Your task to perform on an android device: Empty the shopping cart on walmart. Search for "asus rog" on walmart, select the first entry, add it to the cart, then select checkout. Image 0: 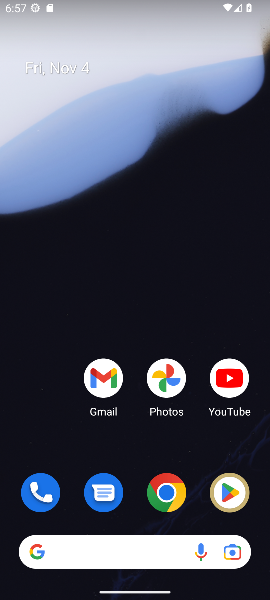
Step 0: drag from (143, 469) to (185, 83)
Your task to perform on an android device: Empty the shopping cart on walmart. Search for "asus rog" on walmart, select the first entry, add it to the cart, then select checkout. Image 1: 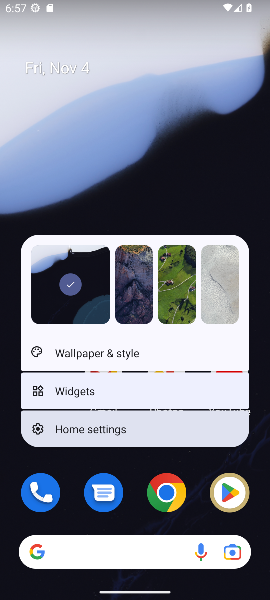
Step 1: click (241, 133)
Your task to perform on an android device: Empty the shopping cart on walmart. Search for "asus rog" on walmart, select the first entry, add it to the cart, then select checkout. Image 2: 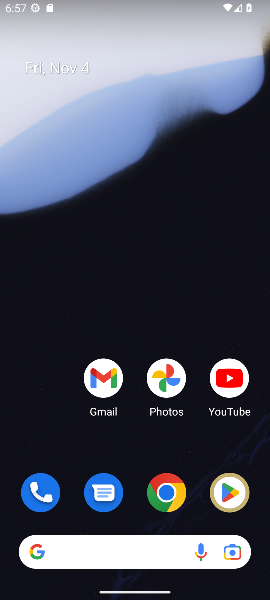
Step 2: drag from (131, 456) to (157, 102)
Your task to perform on an android device: Empty the shopping cart on walmart. Search for "asus rog" on walmart, select the first entry, add it to the cart, then select checkout. Image 3: 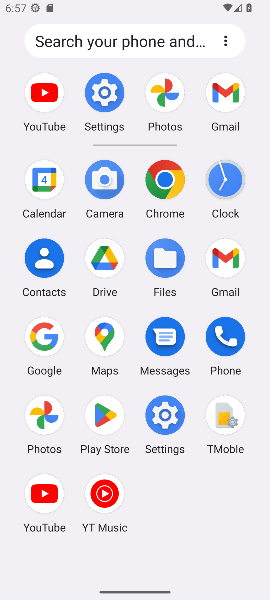
Step 3: click (166, 179)
Your task to perform on an android device: Empty the shopping cart on walmart. Search for "asus rog" on walmart, select the first entry, add it to the cart, then select checkout. Image 4: 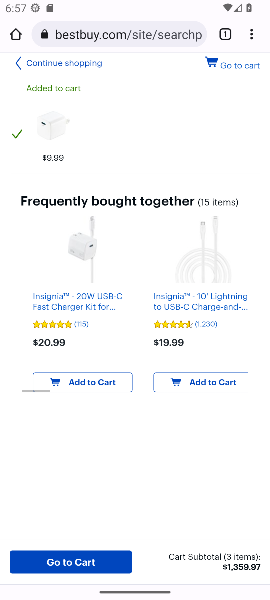
Step 4: click (190, 30)
Your task to perform on an android device: Empty the shopping cart on walmart. Search for "asus rog" on walmart, select the first entry, add it to the cart, then select checkout. Image 5: 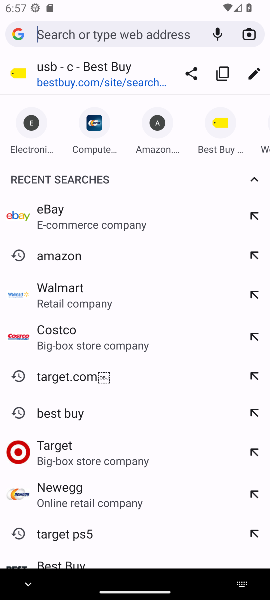
Step 5: type "walmart.com"
Your task to perform on an android device: Empty the shopping cart on walmart. Search for "asus rog" on walmart, select the first entry, add it to the cart, then select checkout. Image 6: 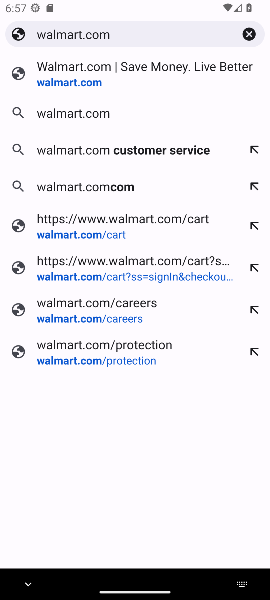
Step 6: press enter
Your task to perform on an android device: Empty the shopping cart on walmart. Search for "asus rog" on walmart, select the first entry, add it to the cart, then select checkout. Image 7: 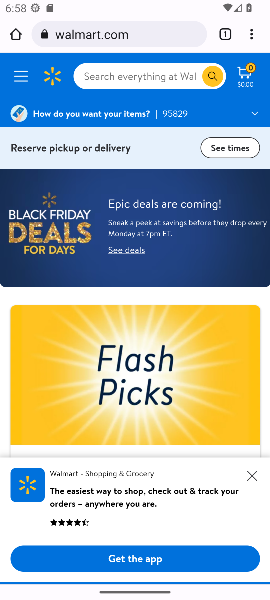
Step 7: click (250, 73)
Your task to perform on an android device: Empty the shopping cart on walmart. Search for "asus rog" on walmart, select the first entry, add it to the cart, then select checkout. Image 8: 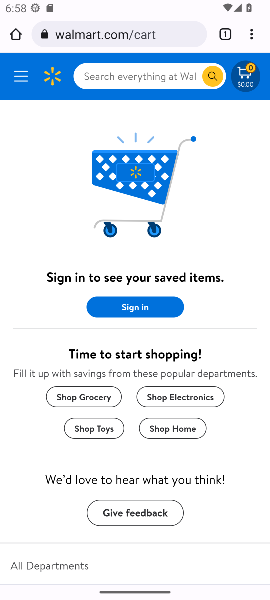
Step 8: click (170, 73)
Your task to perform on an android device: Empty the shopping cart on walmart. Search for "asus rog" on walmart, select the first entry, add it to the cart, then select checkout. Image 9: 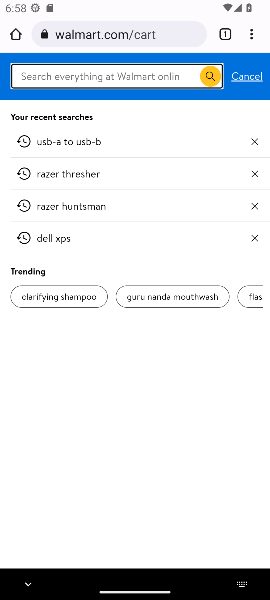
Step 9: type "asus rog"
Your task to perform on an android device: Empty the shopping cart on walmart. Search for "asus rog" on walmart, select the first entry, add it to the cart, then select checkout. Image 10: 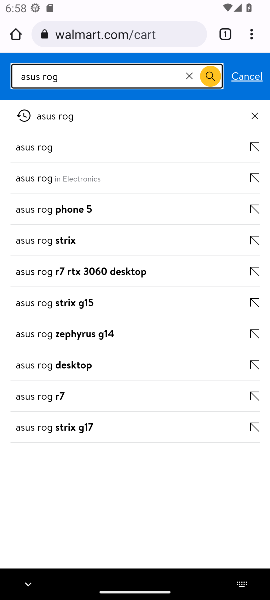
Step 10: press enter
Your task to perform on an android device: Empty the shopping cart on walmart. Search for "asus rog" on walmart, select the first entry, add it to the cart, then select checkout. Image 11: 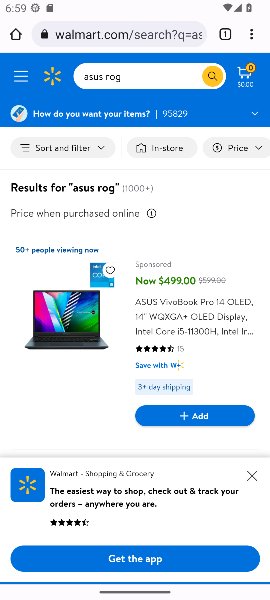
Step 11: drag from (85, 406) to (154, 62)
Your task to perform on an android device: Empty the shopping cart on walmart. Search for "asus rog" on walmart, select the first entry, add it to the cart, then select checkout. Image 12: 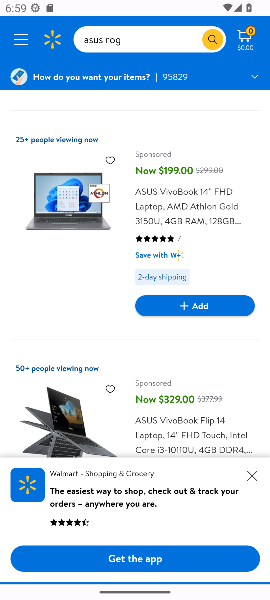
Step 12: drag from (138, 432) to (182, 110)
Your task to perform on an android device: Empty the shopping cart on walmart. Search for "asus rog" on walmart, select the first entry, add it to the cart, then select checkout. Image 13: 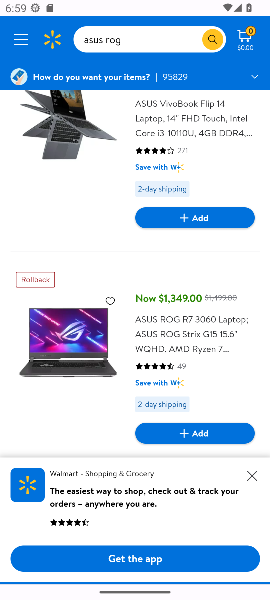
Step 13: click (201, 432)
Your task to perform on an android device: Empty the shopping cart on walmart. Search for "asus rog" on walmart, select the first entry, add it to the cart, then select checkout. Image 14: 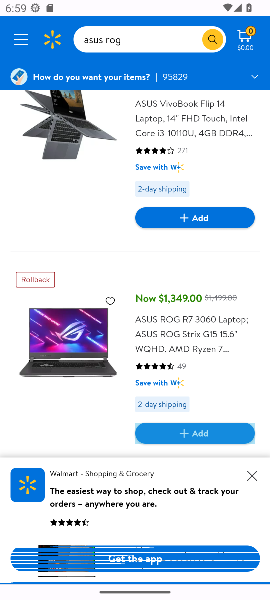
Step 14: click (207, 428)
Your task to perform on an android device: Empty the shopping cart on walmart. Search for "asus rog" on walmart, select the first entry, add it to the cart, then select checkout. Image 15: 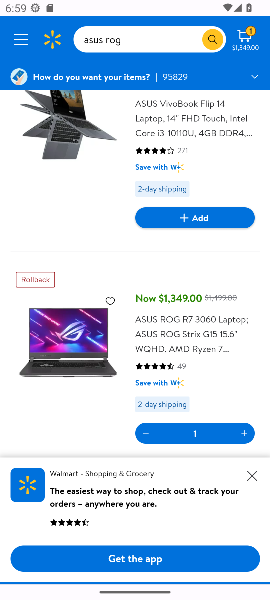
Step 15: click (185, 347)
Your task to perform on an android device: Empty the shopping cart on walmart. Search for "asus rog" on walmart, select the first entry, add it to the cart, then select checkout. Image 16: 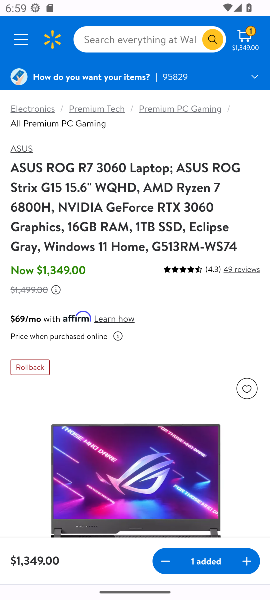
Step 16: click (242, 40)
Your task to perform on an android device: Empty the shopping cart on walmart. Search for "asus rog" on walmart, select the first entry, add it to the cart, then select checkout. Image 17: 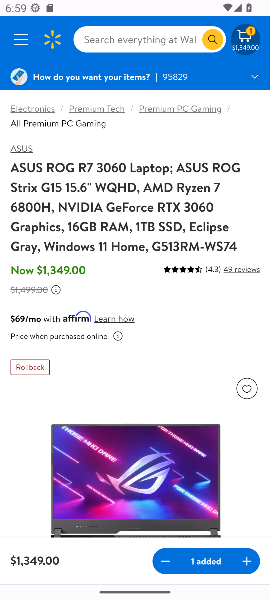
Step 17: drag from (176, 463) to (190, 91)
Your task to perform on an android device: Empty the shopping cart on walmart. Search for "asus rog" on walmart, select the first entry, add it to the cart, then select checkout. Image 18: 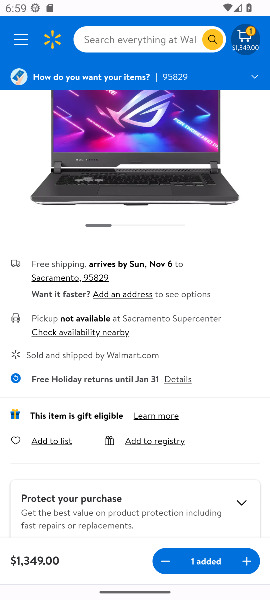
Step 18: click (246, 46)
Your task to perform on an android device: Empty the shopping cart on walmart. Search for "asus rog" on walmart, select the first entry, add it to the cart, then select checkout. Image 19: 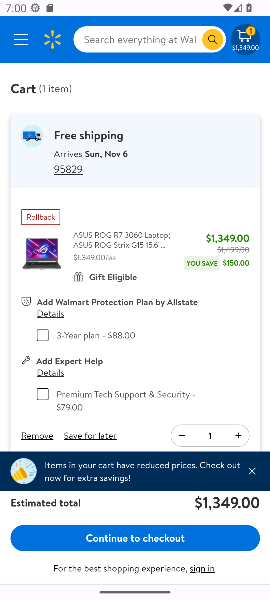
Step 19: drag from (202, 410) to (209, 296)
Your task to perform on an android device: Empty the shopping cart on walmart. Search for "asus rog" on walmart, select the first entry, add it to the cart, then select checkout. Image 20: 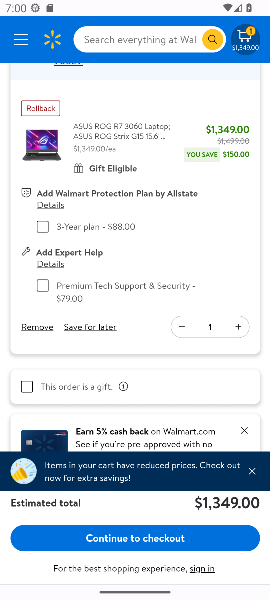
Step 20: click (156, 539)
Your task to perform on an android device: Empty the shopping cart on walmart. Search for "asus rog" on walmart, select the first entry, add it to the cart, then select checkout. Image 21: 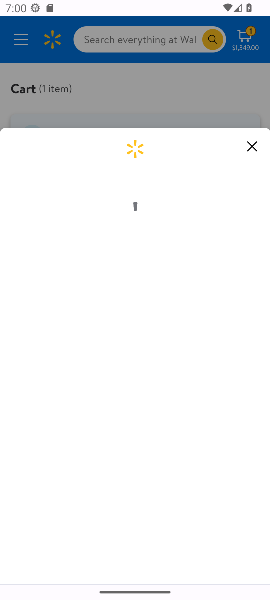
Step 21: task complete